Your task to perform on an android device: turn on sleep mode Image 0: 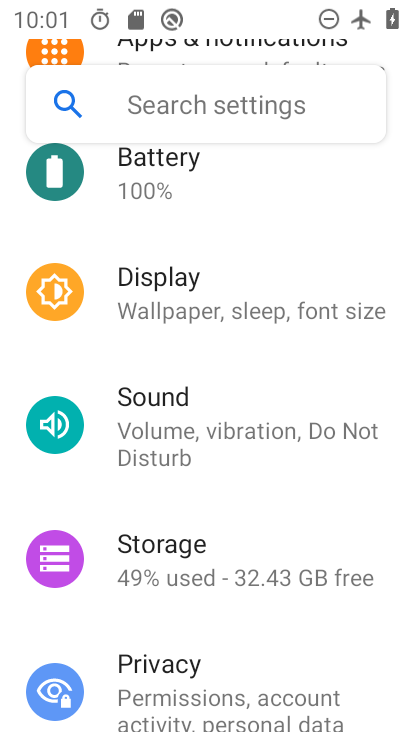
Step 0: press home button
Your task to perform on an android device: turn on sleep mode Image 1: 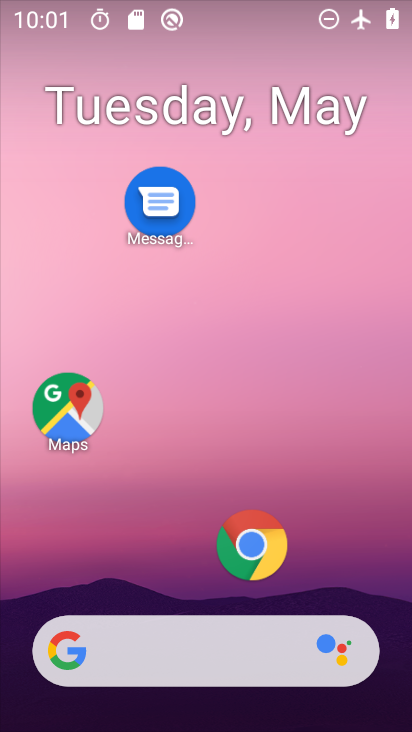
Step 1: drag from (190, 588) to (154, 111)
Your task to perform on an android device: turn on sleep mode Image 2: 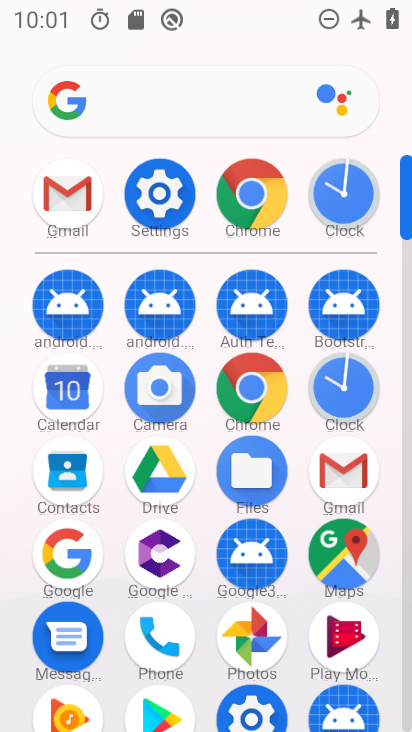
Step 2: click (182, 208)
Your task to perform on an android device: turn on sleep mode Image 3: 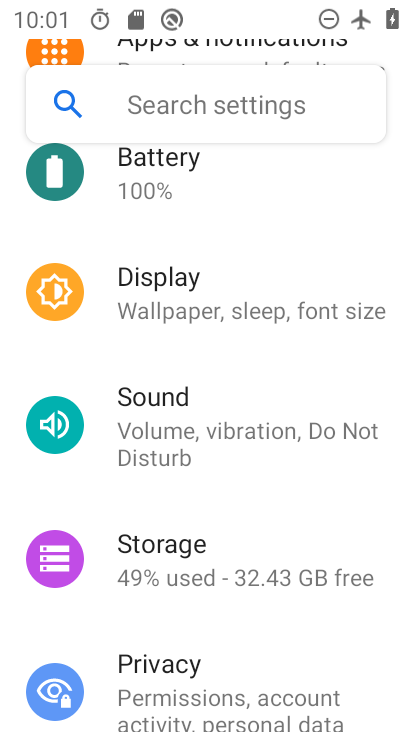
Step 3: click (200, 300)
Your task to perform on an android device: turn on sleep mode Image 4: 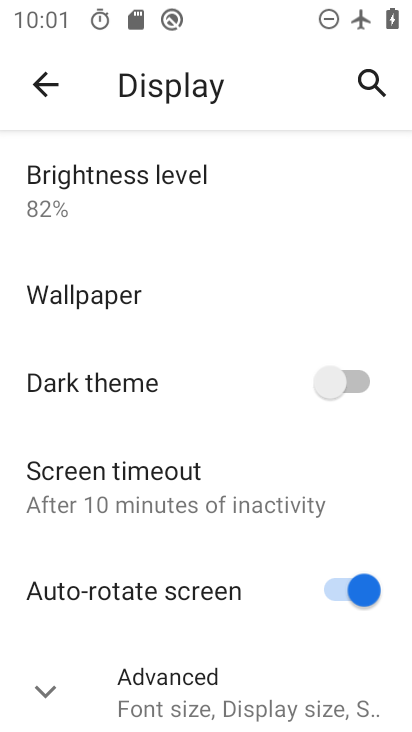
Step 4: click (134, 504)
Your task to perform on an android device: turn on sleep mode Image 5: 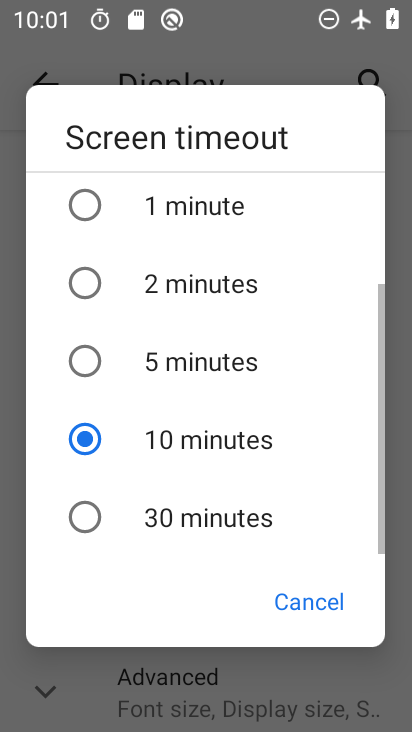
Step 5: click (166, 290)
Your task to perform on an android device: turn on sleep mode Image 6: 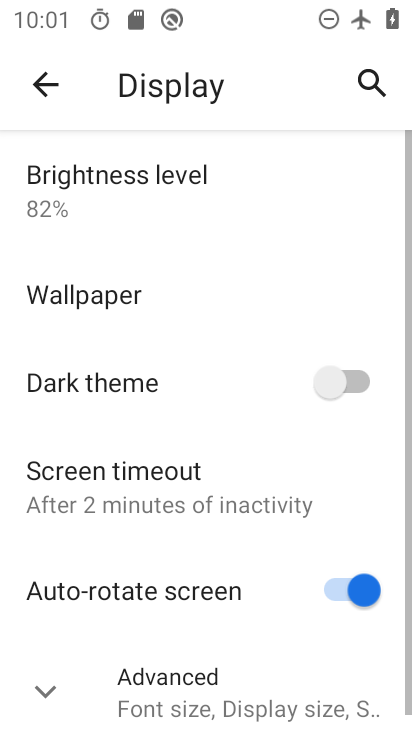
Step 6: task complete